Your task to perform on an android device: clear history in the chrome app Image 0: 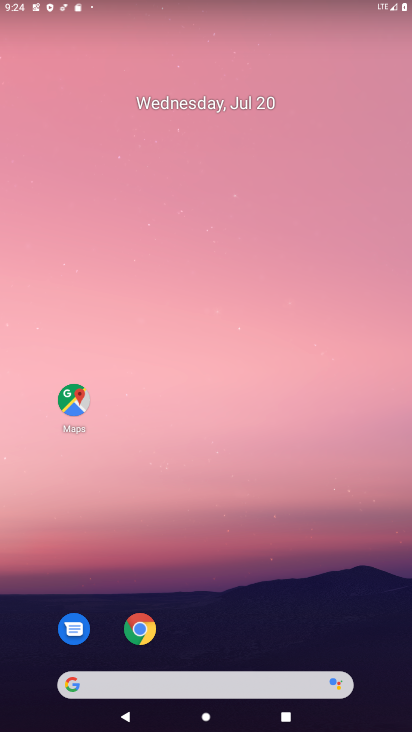
Step 0: click (134, 634)
Your task to perform on an android device: clear history in the chrome app Image 1: 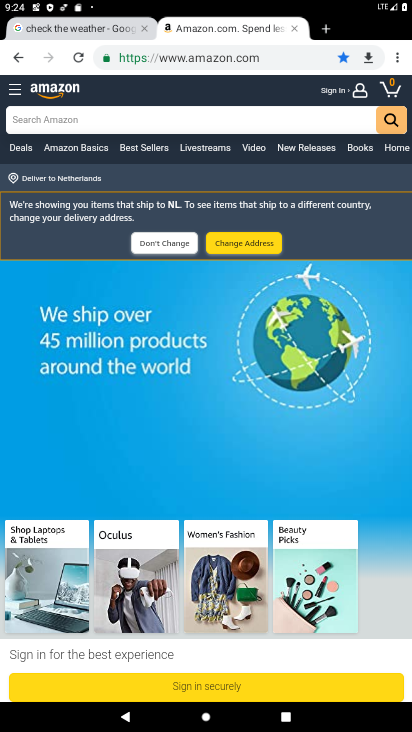
Step 1: drag from (400, 54) to (291, 213)
Your task to perform on an android device: clear history in the chrome app Image 2: 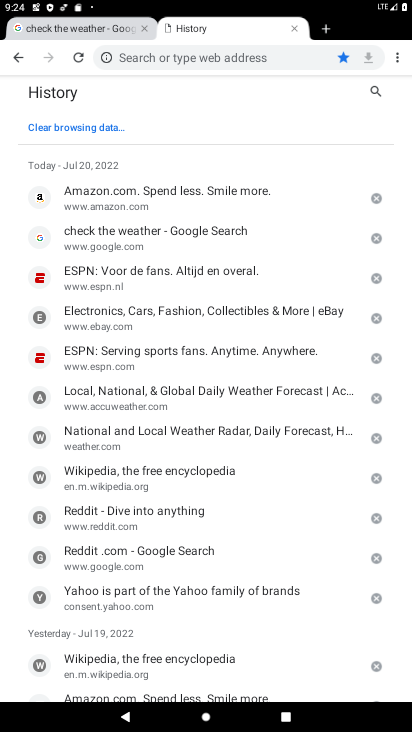
Step 2: click (63, 130)
Your task to perform on an android device: clear history in the chrome app Image 3: 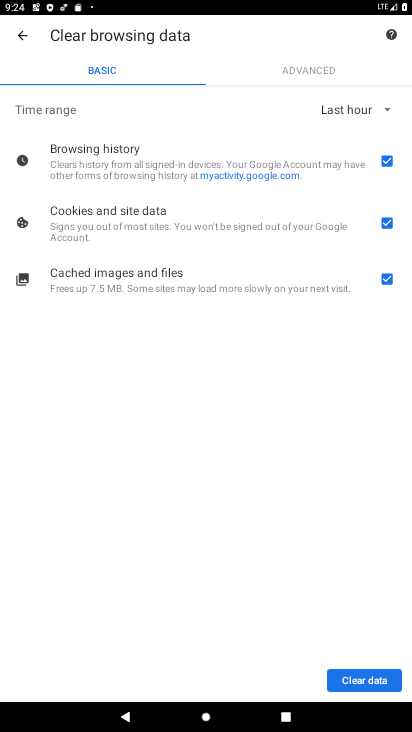
Step 3: click (396, 679)
Your task to perform on an android device: clear history in the chrome app Image 4: 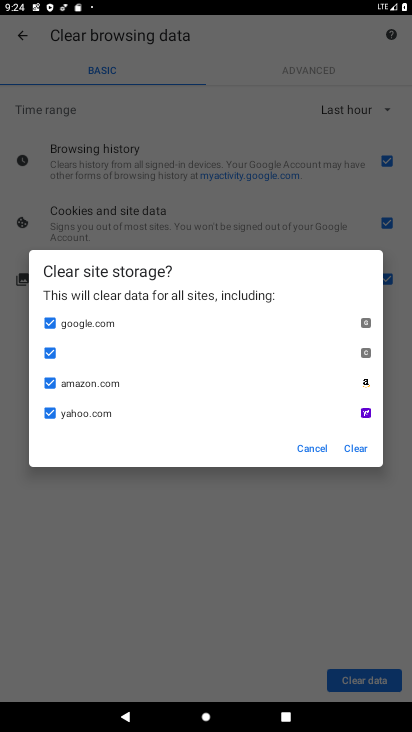
Step 4: click (349, 450)
Your task to perform on an android device: clear history in the chrome app Image 5: 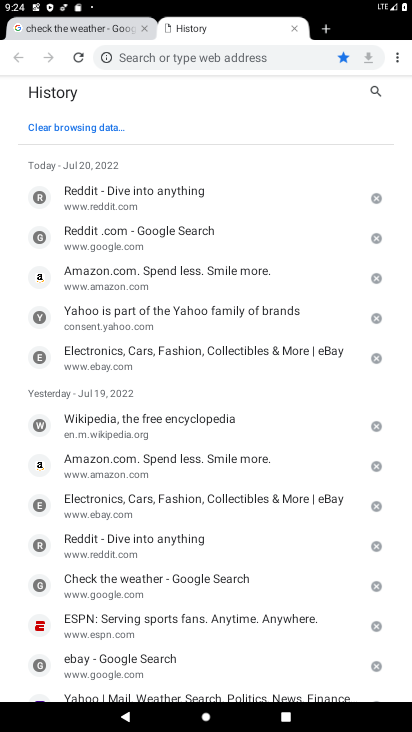
Step 5: click (88, 128)
Your task to perform on an android device: clear history in the chrome app Image 6: 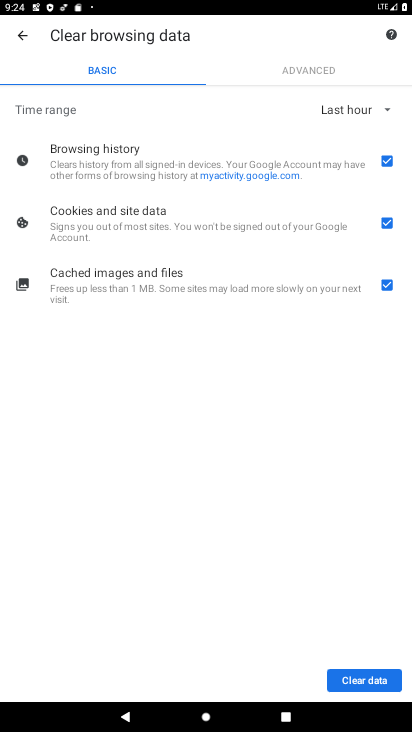
Step 6: click (379, 679)
Your task to perform on an android device: clear history in the chrome app Image 7: 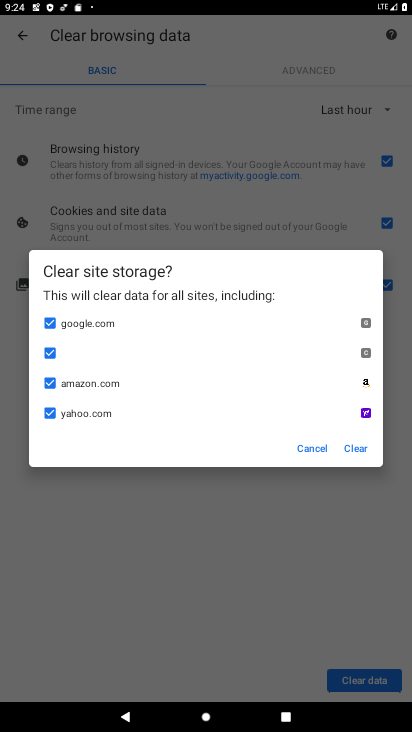
Step 7: click (320, 456)
Your task to perform on an android device: clear history in the chrome app Image 8: 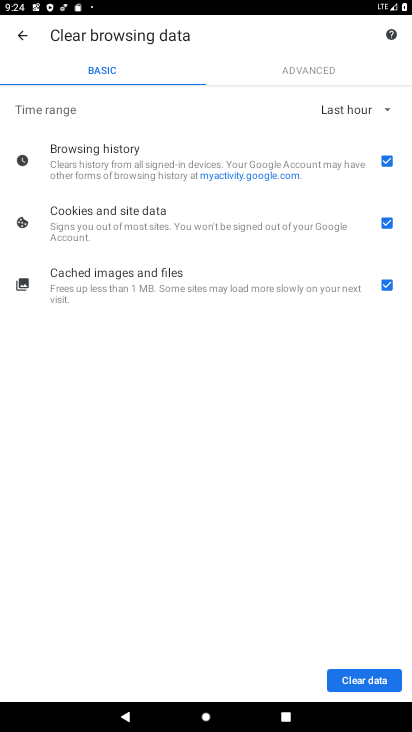
Step 8: click (372, 118)
Your task to perform on an android device: clear history in the chrome app Image 9: 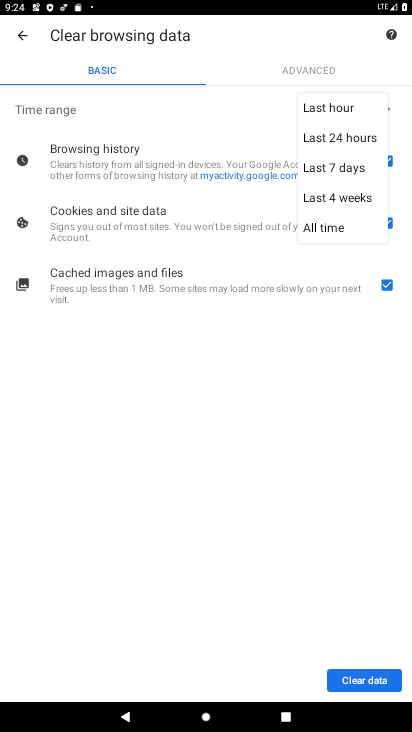
Step 9: click (330, 224)
Your task to perform on an android device: clear history in the chrome app Image 10: 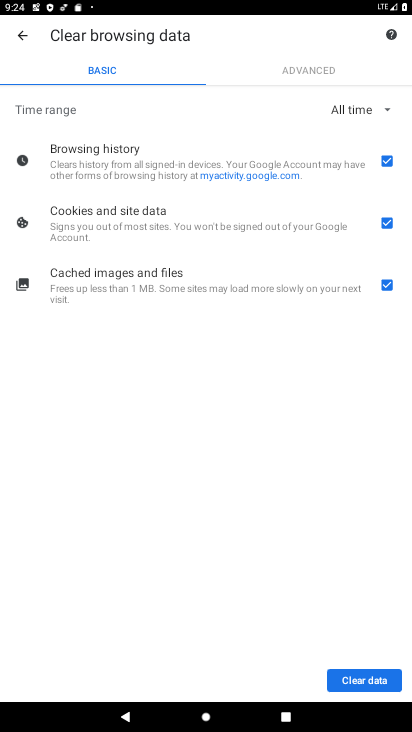
Step 10: click (377, 670)
Your task to perform on an android device: clear history in the chrome app Image 11: 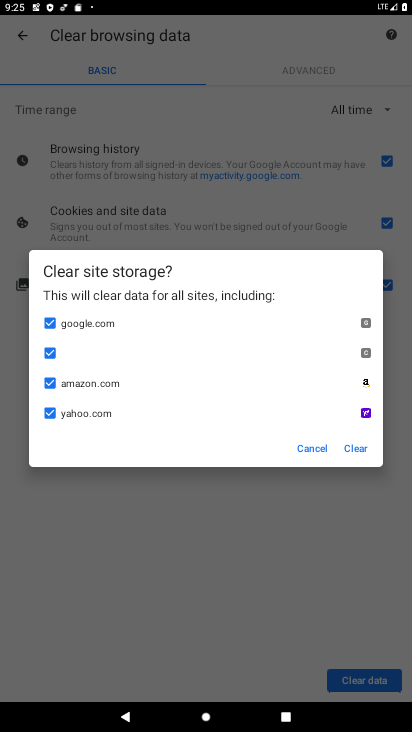
Step 11: click (357, 433)
Your task to perform on an android device: clear history in the chrome app Image 12: 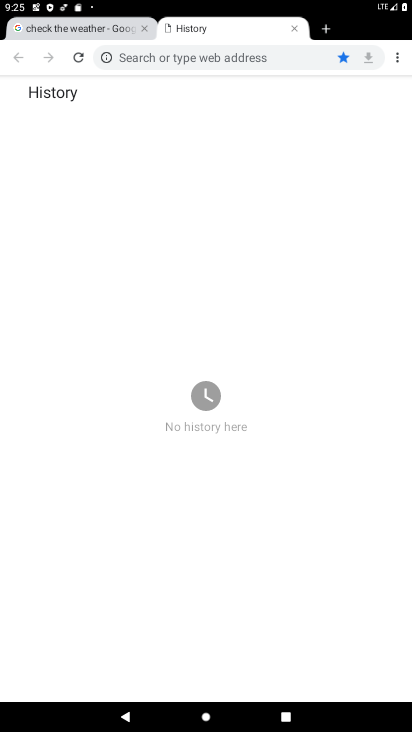
Step 12: task complete